Your task to perform on an android device: Open the calendar and show me this week's events? Image 0: 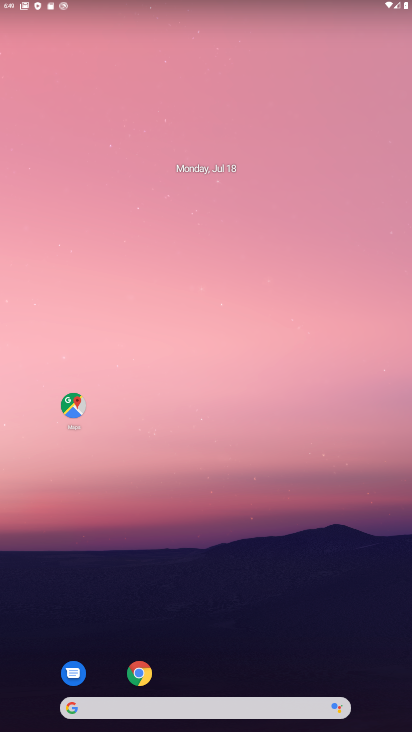
Step 0: drag from (261, 578) to (265, 11)
Your task to perform on an android device: Open the calendar and show me this week's events? Image 1: 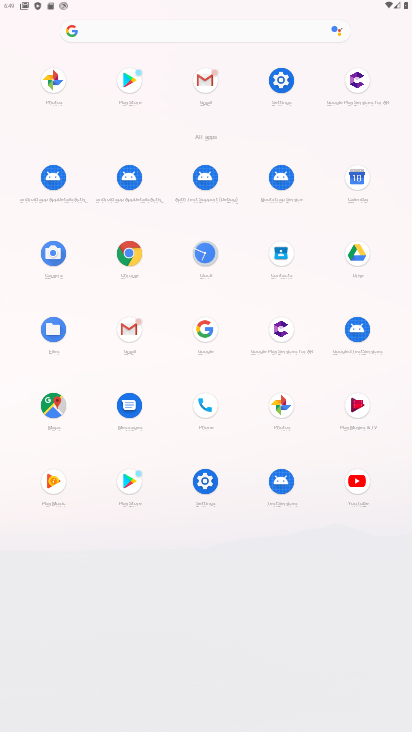
Step 1: click (355, 169)
Your task to perform on an android device: Open the calendar and show me this week's events? Image 2: 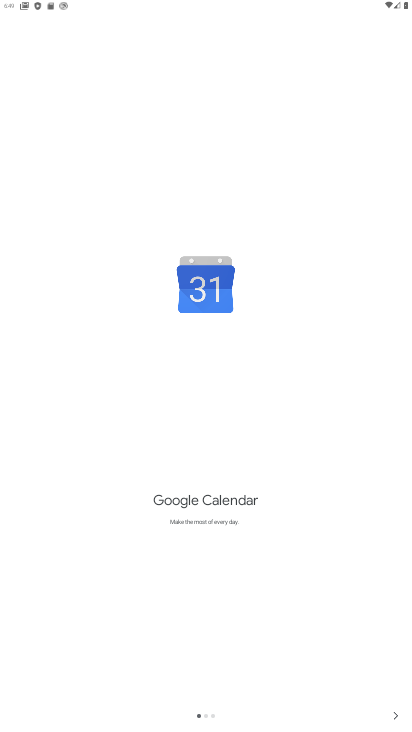
Step 2: click (392, 712)
Your task to perform on an android device: Open the calendar and show me this week's events? Image 3: 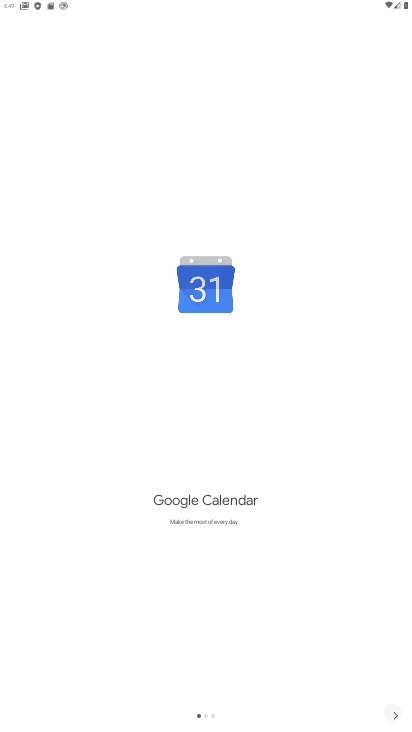
Step 3: click (392, 712)
Your task to perform on an android device: Open the calendar and show me this week's events? Image 4: 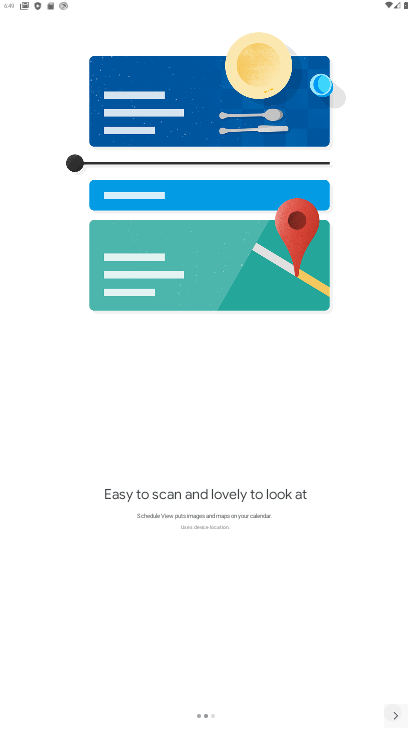
Step 4: click (392, 712)
Your task to perform on an android device: Open the calendar and show me this week's events? Image 5: 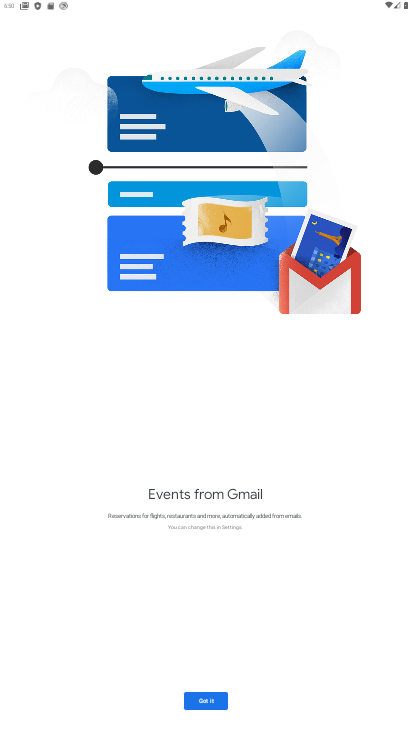
Step 5: click (210, 703)
Your task to perform on an android device: Open the calendar and show me this week's events? Image 6: 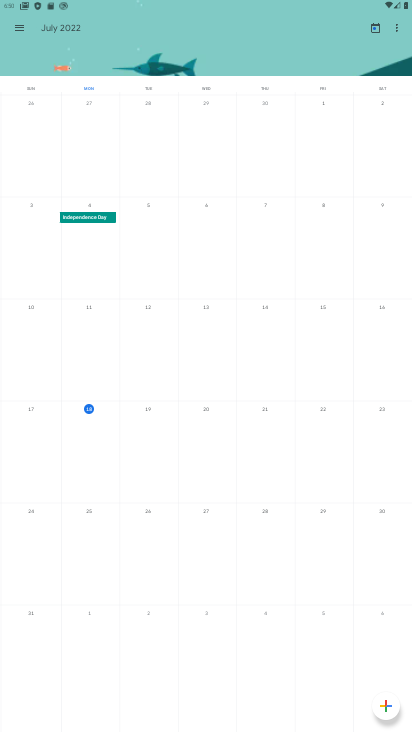
Step 6: click (20, 22)
Your task to perform on an android device: Open the calendar and show me this week's events? Image 7: 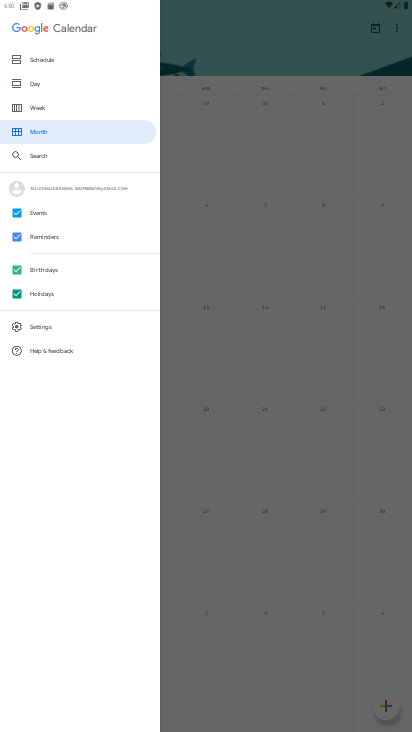
Step 7: click (35, 104)
Your task to perform on an android device: Open the calendar and show me this week's events? Image 8: 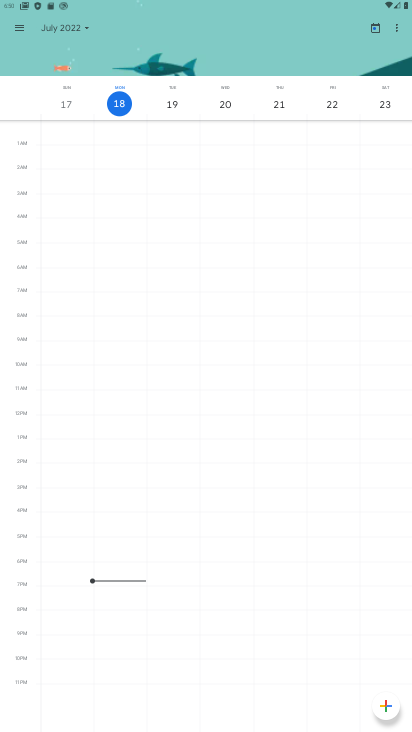
Step 8: task complete